Your task to perform on an android device: What's the weather? Image 0: 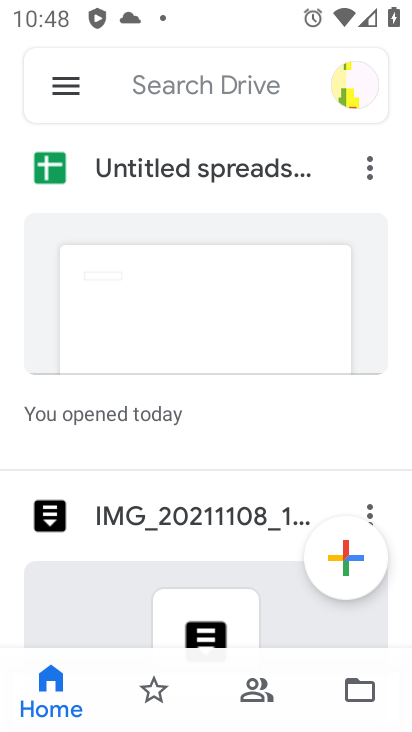
Step 0: press home button
Your task to perform on an android device: What's the weather? Image 1: 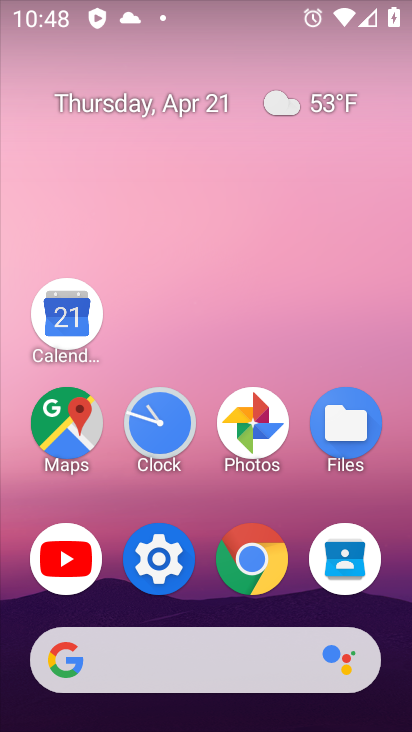
Step 1: click (310, 97)
Your task to perform on an android device: What's the weather? Image 2: 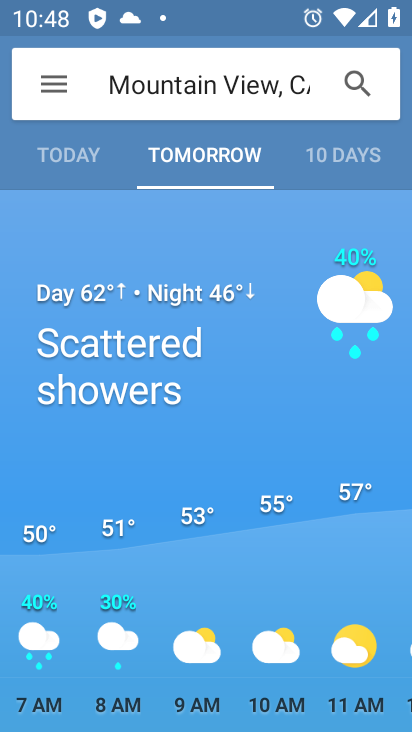
Step 2: task complete